Your task to perform on an android device: set default search engine in the chrome app Image 0: 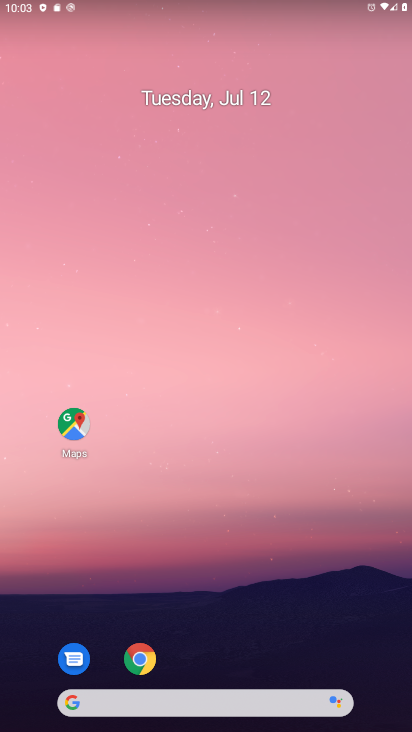
Step 0: click (143, 661)
Your task to perform on an android device: set default search engine in the chrome app Image 1: 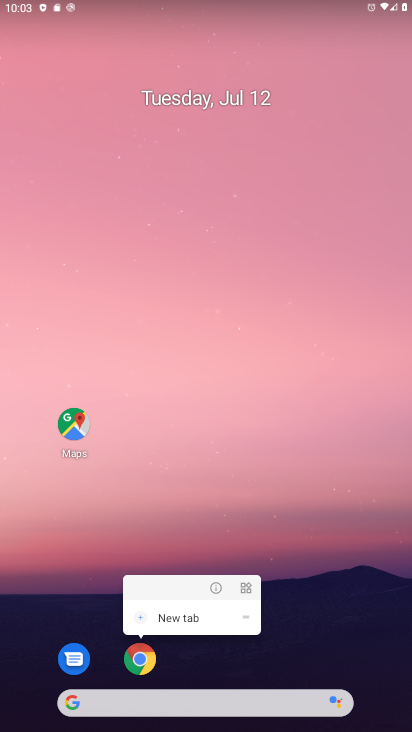
Step 1: click (146, 666)
Your task to perform on an android device: set default search engine in the chrome app Image 2: 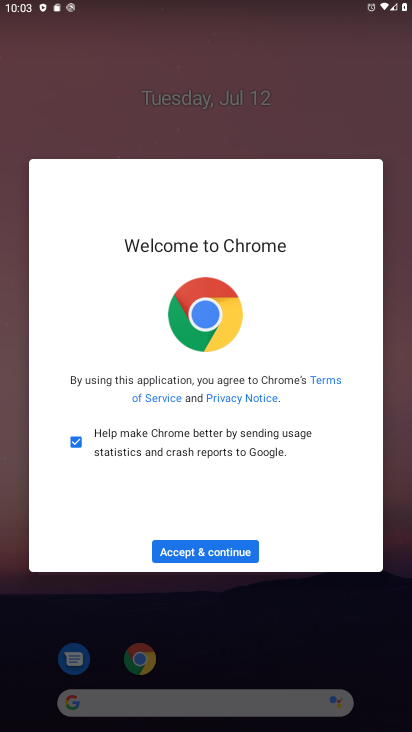
Step 2: click (200, 547)
Your task to perform on an android device: set default search engine in the chrome app Image 3: 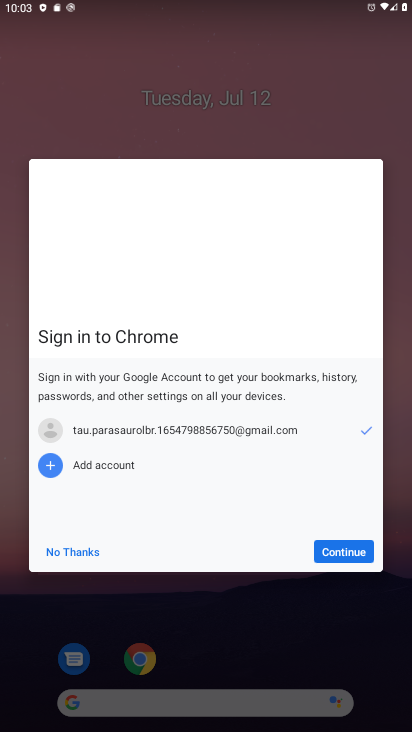
Step 3: click (342, 553)
Your task to perform on an android device: set default search engine in the chrome app Image 4: 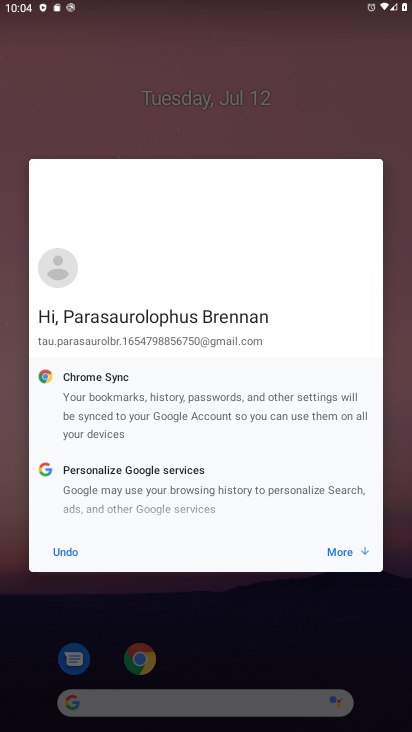
Step 4: click (339, 553)
Your task to perform on an android device: set default search engine in the chrome app Image 5: 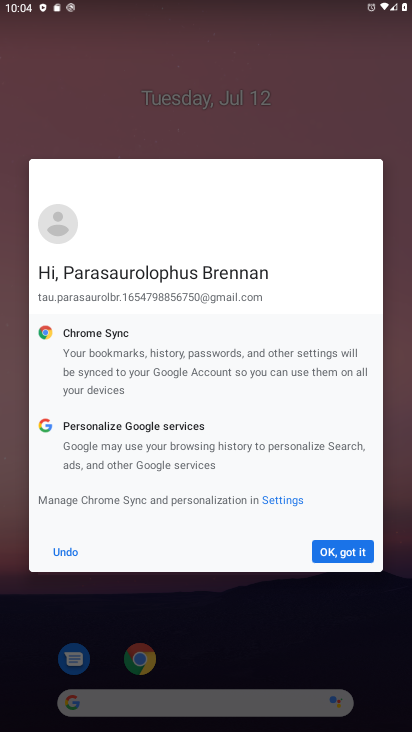
Step 5: click (339, 553)
Your task to perform on an android device: set default search engine in the chrome app Image 6: 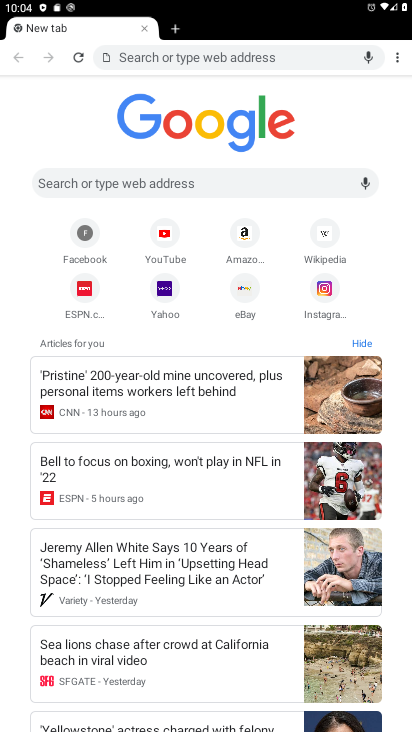
Step 6: drag from (395, 50) to (299, 262)
Your task to perform on an android device: set default search engine in the chrome app Image 7: 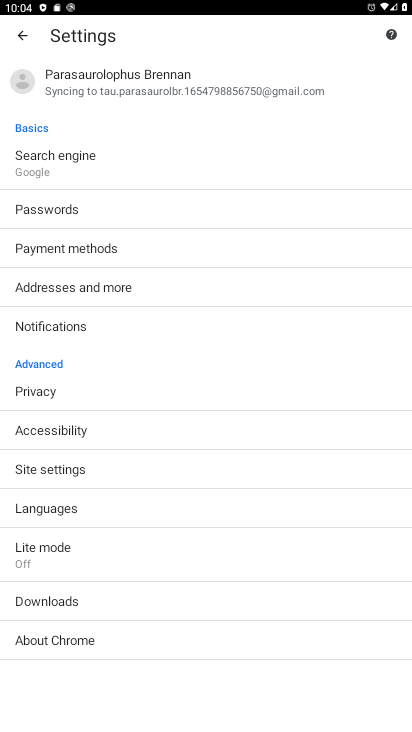
Step 7: click (68, 172)
Your task to perform on an android device: set default search engine in the chrome app Image 8: 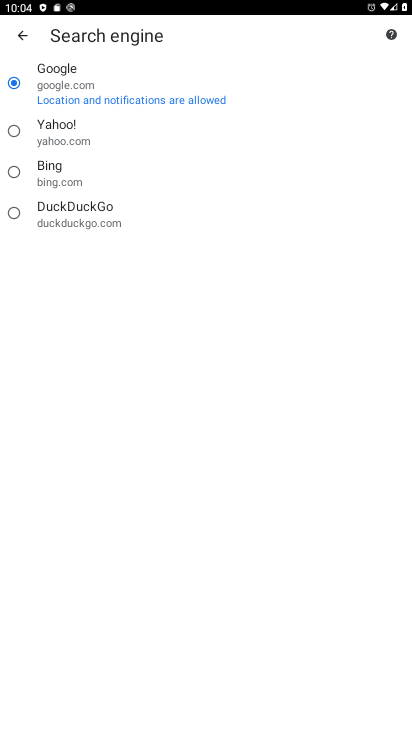
Step 8: click (50, 137)
Your task to perform on an android device: set default search engine in the chrome app Image 9: 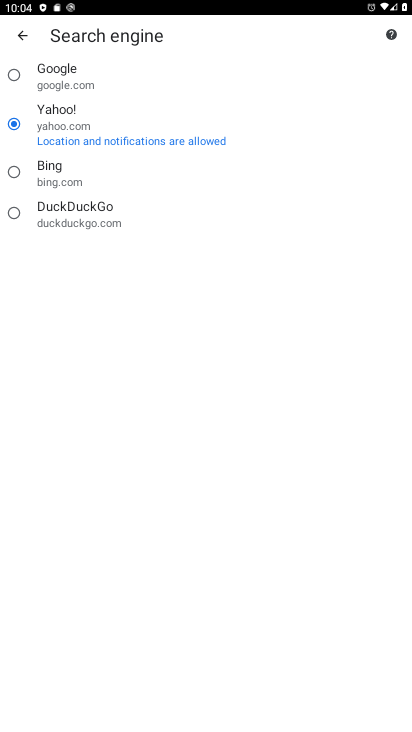
Step 9: task complete